Your task to perform on an android device: search for starred emails in the gmail app Image 0: 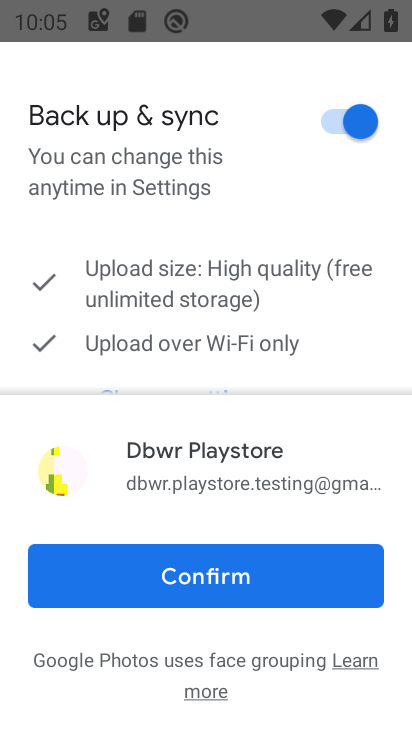
Step 0: press home button
Your task to perform on an android device: search for starred emails in the gmail app Image 1: 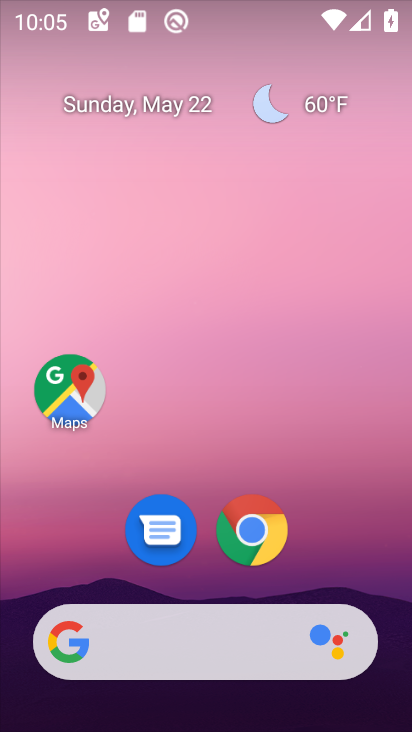
Step 1: drag from (392, 643) to (374, 146)
Your task to perform on an android device: search for starred emails in the gmail app Image 2: 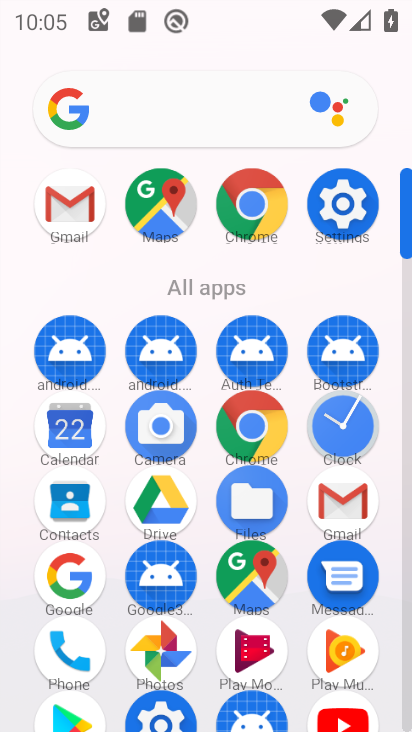
Step 2: click (333, 506)
Your task to perform on an android device: search for starred emails in the gmail app Image 3: 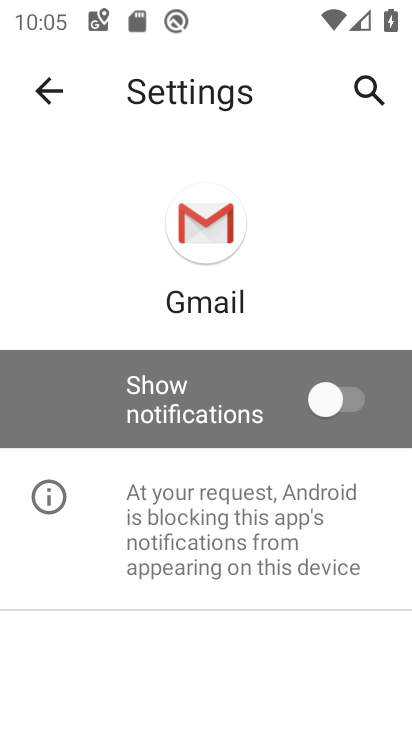
Step 3: click (63, 93)
Your task to perform on an android device: search for starred emails in the gmail app Image 4: 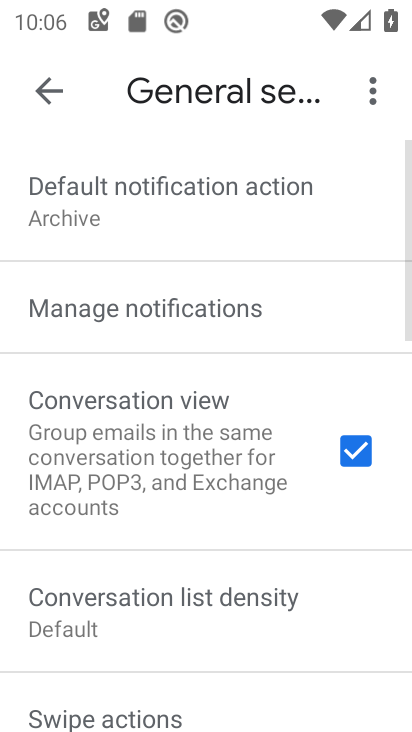
Step 4: click (61, 89)
Your task to perform on an android device: search for starred emails in the gmail app Image 5: 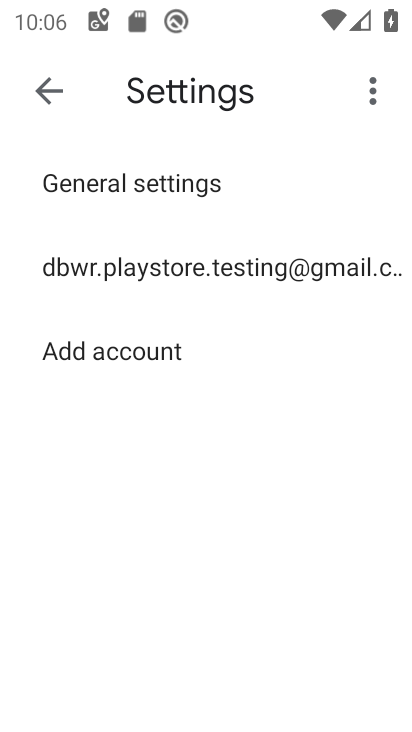
Step 5: click (45, 95)
Your task to perform on an android device: search for starred emails in the gmail app Image 6: 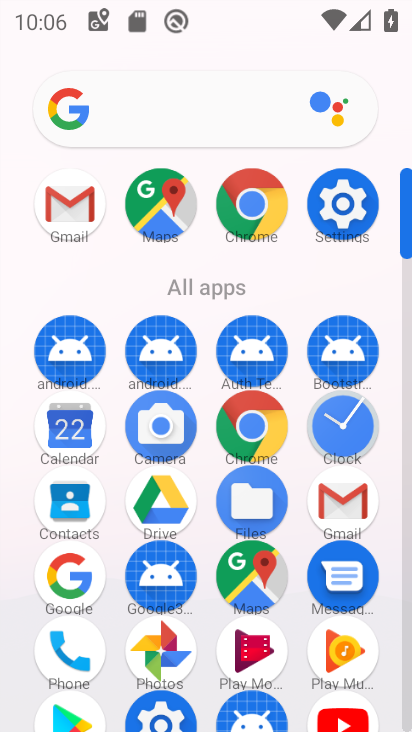
Step 6: click (77, 211)
Your task to perform on an android device: search for starred emails in the gmail app Image 7: 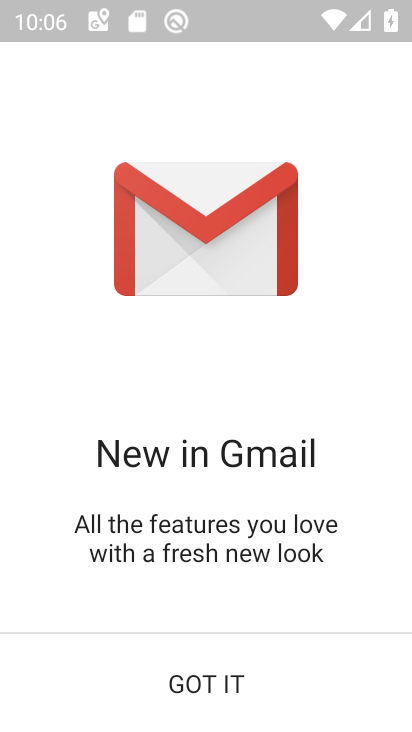
Step 7: click (198, 676)
Your task to perform on an android device: search for starred emails in the gmail app Image 8: 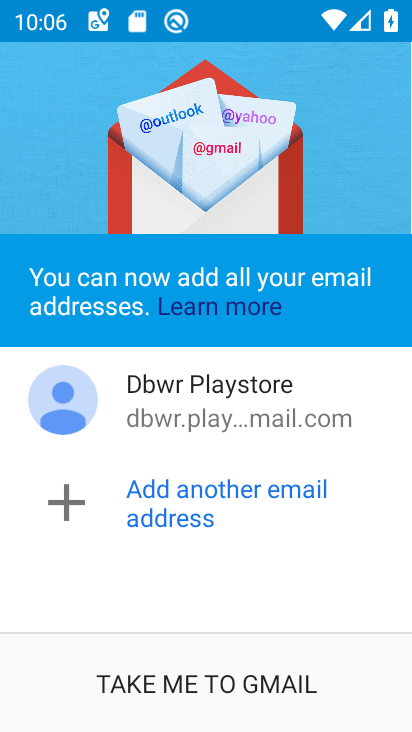
Step 8: click (209, 679)
Your task to perform on an android device: search for starred emails in the gmail app Image 9: 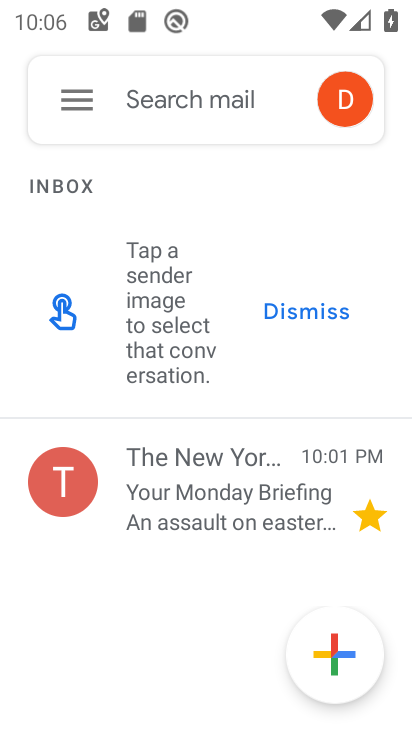
Step 9: click (74, 104)
Your task to perform on an android device: search for starred emails in the gmail app Image 10: 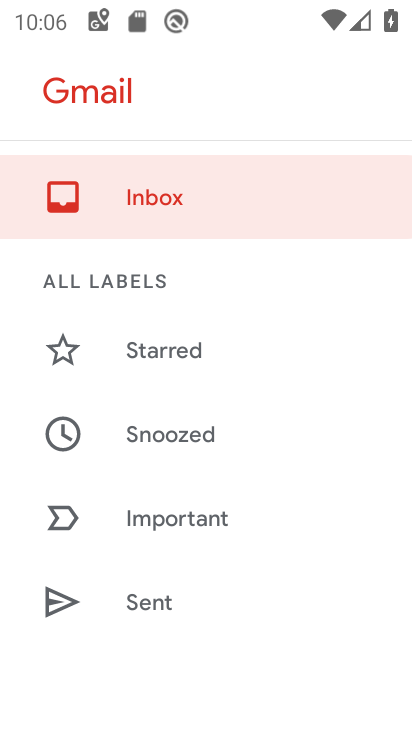
Step 10: click (166, 361)
Your task to perform on an android device: search for starred emails in the gmail app Image 11: 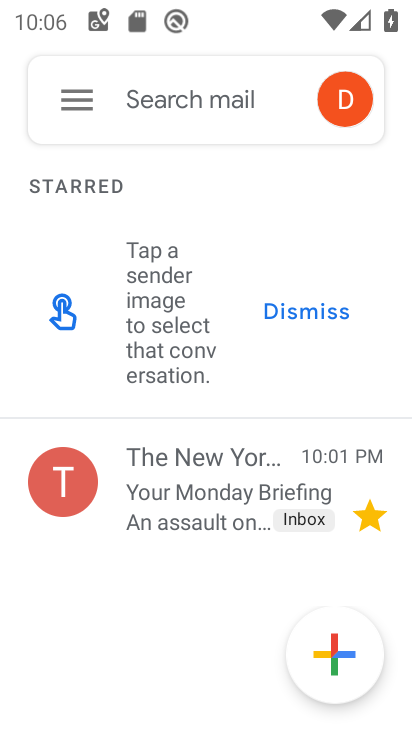
Step 11: task complete